Your task to perform on an android device: toggle location history Image 0: 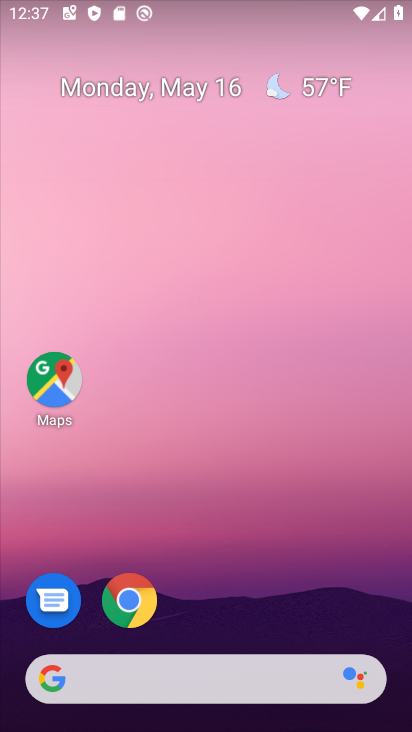
Step 0: drag from (177, 572) to (256, 36)
Your task to perform on an android device: toggle location history Image 1: 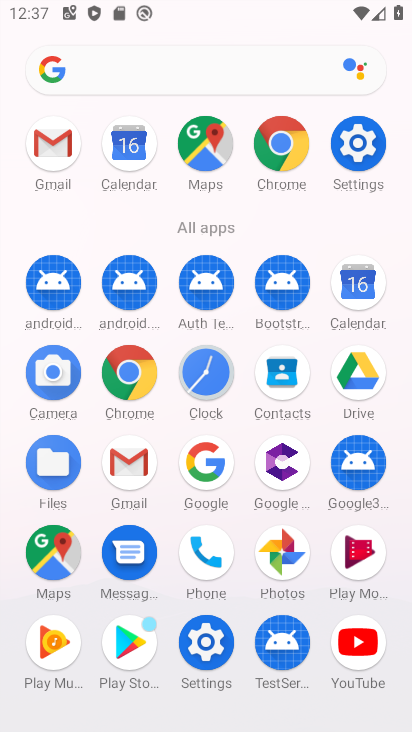
Step 1: click (343, 161)
Your task to perform on an android device: toggle location history Image 2: 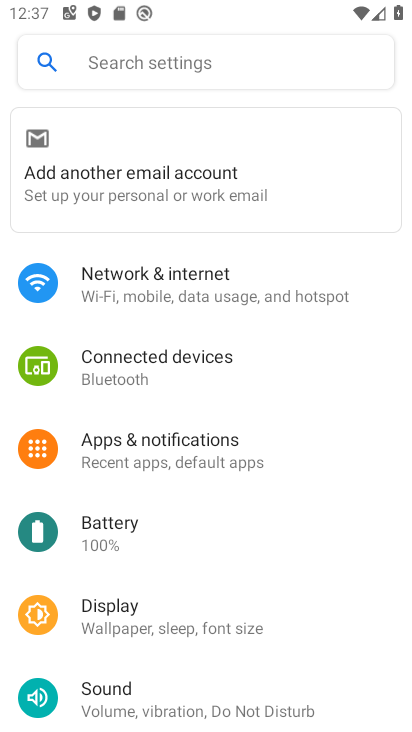
Step 2: drag from (192, 594) to (192, 62)
Your task to perform on an android device: toggle location history Image 3: 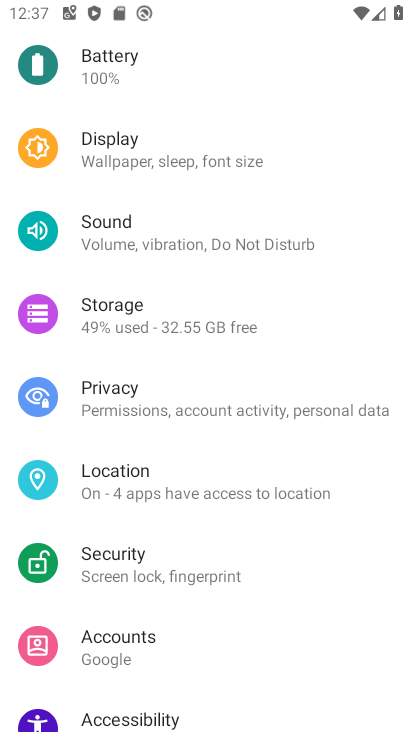
Step 3: click (128, 496)
Your task to perform on an android device: toggle location history Image 4: 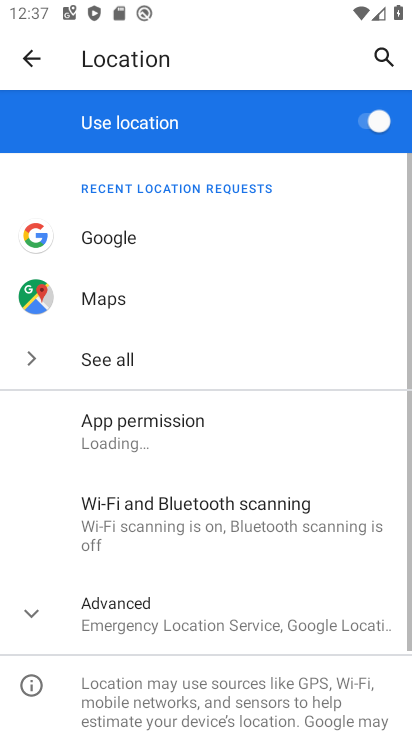
Step 4: click (200, 638)
Your task to perform on an android device: toggle location history Image 5: 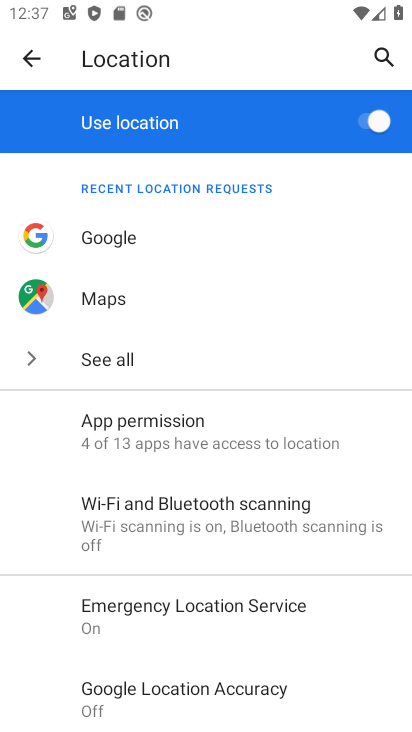
Step 5: drag from (189, 685) to (217, 444)
Your task to perform on an android device: toggle location history Image 6: 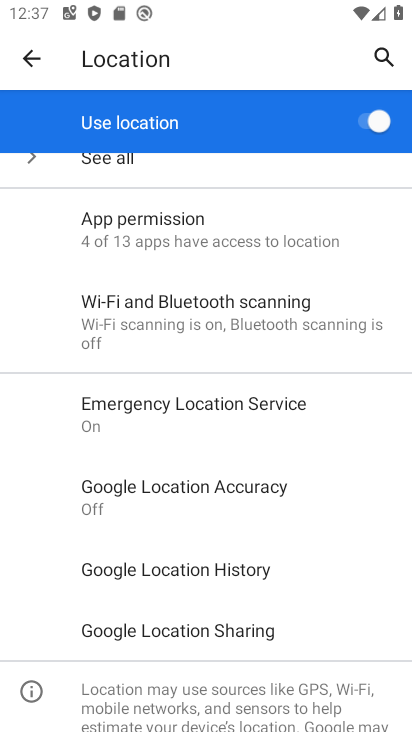
Step 6: click (168, 571)
Your task to perform on an android device: toggle location history Image 7: 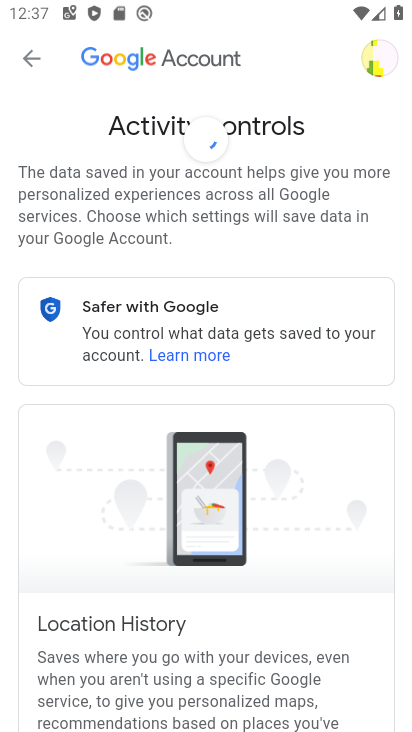
Step 7: drag from (189, 617) to (257, 71)
Your task to perform on an android device: toggle location history Image 8: 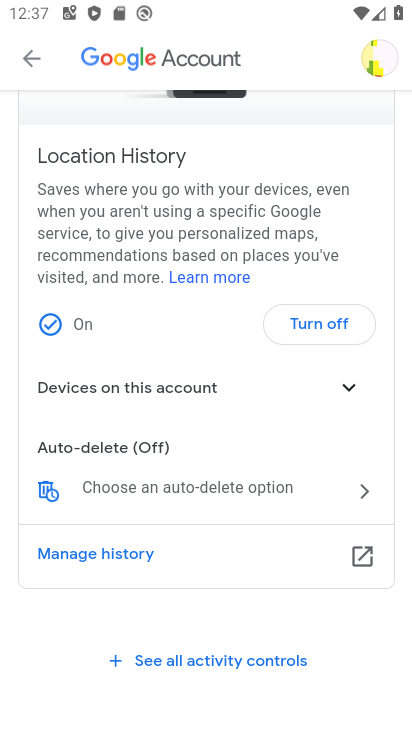
Step 8: click (328, 323)
Your task to perform on an android device: toggle location history Image 9: 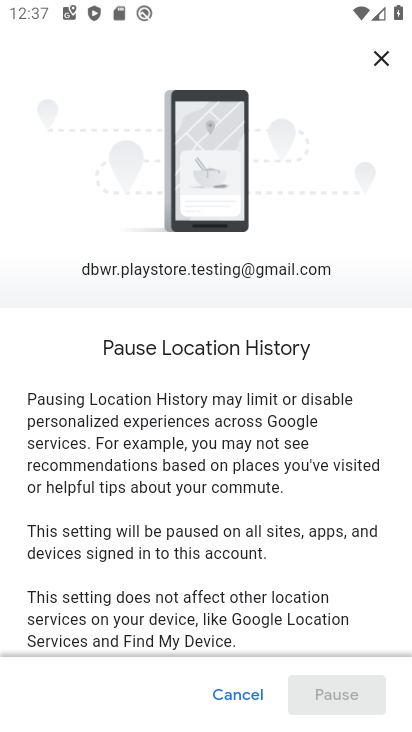
Step 9: drag from (202, 563) to (263, 26)
Your task to perform on an android device: toggle location history Image 10: 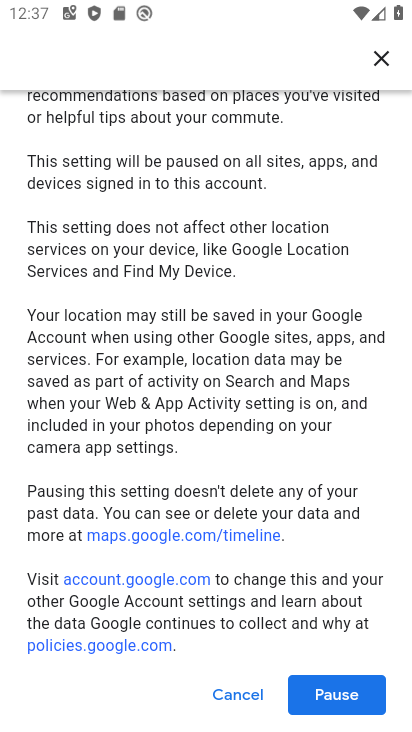
Step 10: drag from (211, 513) to (274, 40)
Your task to perform on an android device: toggle location history Image 11: 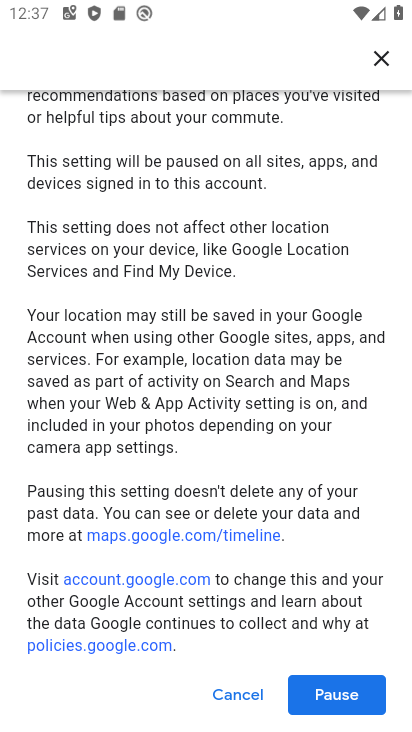
Step 11: click (329, 686)
Your task to perform on an android device: toggle location history Image 12: 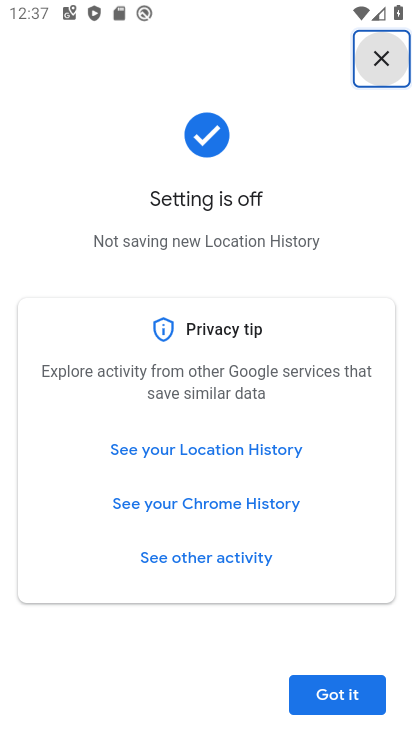
Step 12: task complete